Your task to perform on an android device: turn off notifications settings in the gmail app Image 0: 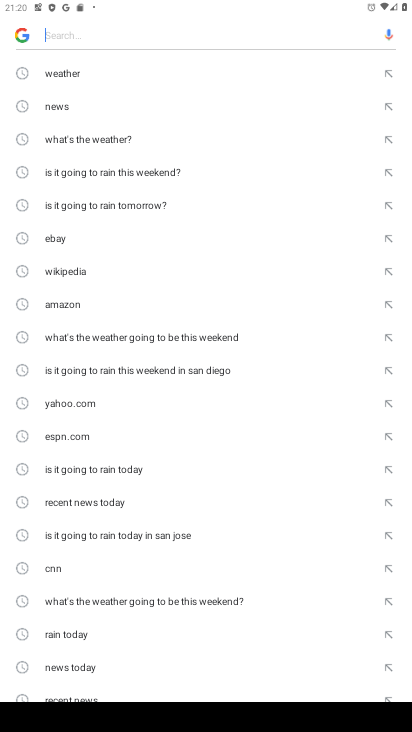
Step 0: press home button
Your task to perform on an android device: turn off notifications settings in the gmail app Image 1: 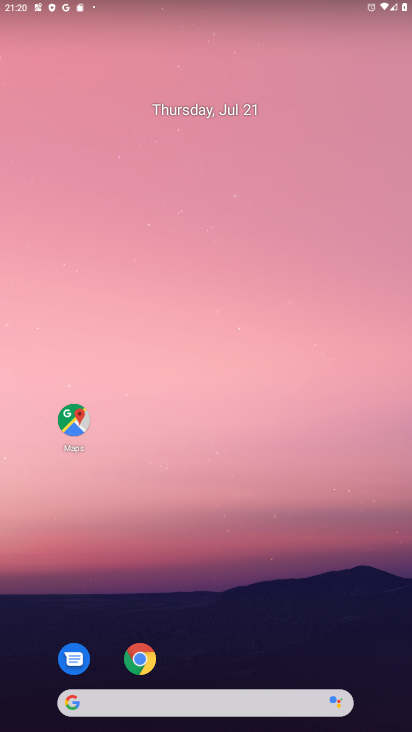
Step 1: drag from (354, 617) to (317, 230)
Your task to perform on an android device: turn off notifications settings in the gmail app Image 2: 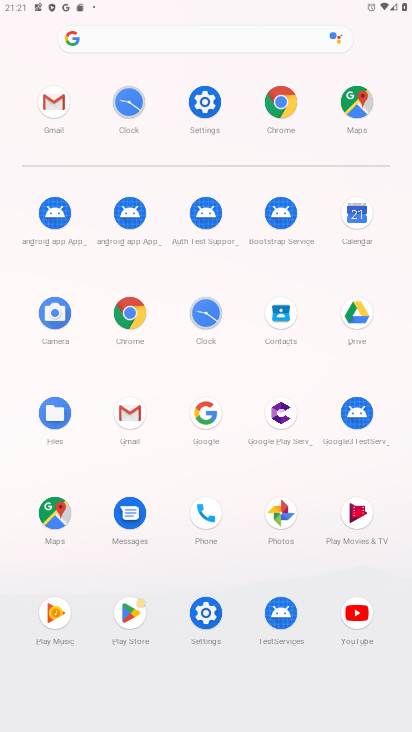
Step 2: click (126, 431)
Your task to perform on an android device: turn off notifications settings in the gmail app Image 3: 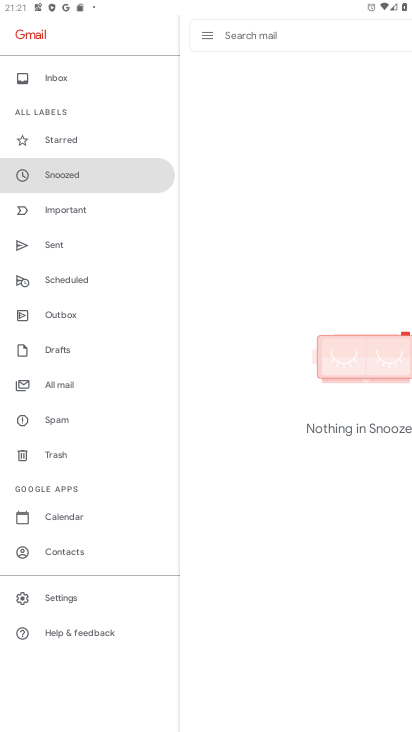
Step 3: press home button
Your task to perform on an android device: turn off notifications settings in the gmail app Image 4: 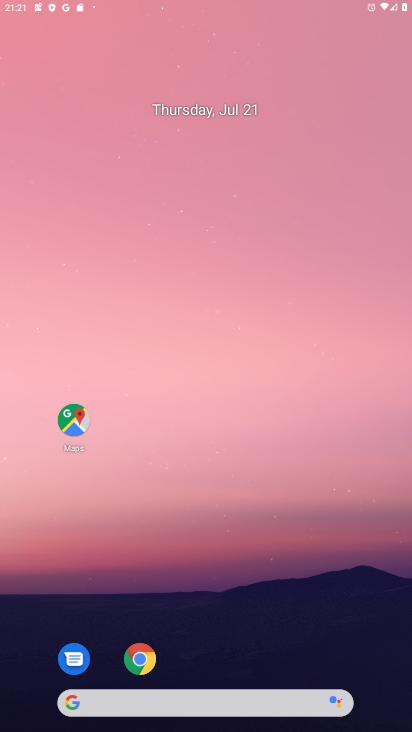
Step 4: drag from (243, 662) to (229, 290)
Your task to perform on an android device: turn off notifications settings in the gmail app Image 5: 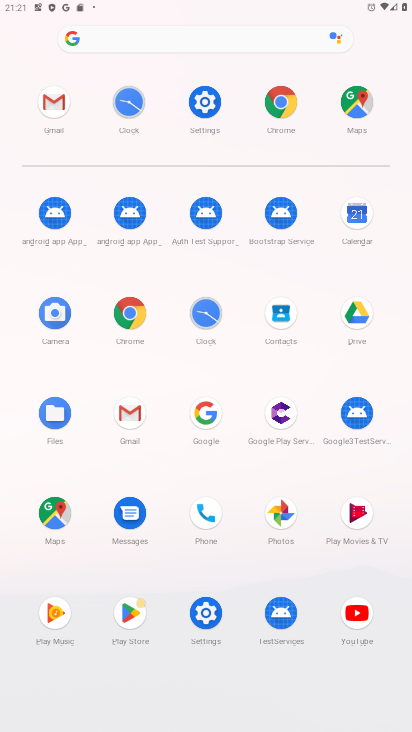
Step 5: click (145, 426)
Your task to perform on an android device: turn off notifications settings in the gmail app Image 6: 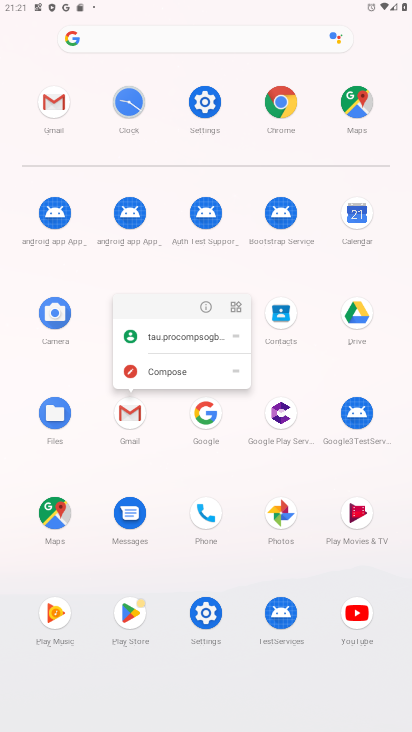
Step 6: click (202, 313)
Your task to perform on an android device: turn off notifications settings in the gmail app Image 7: 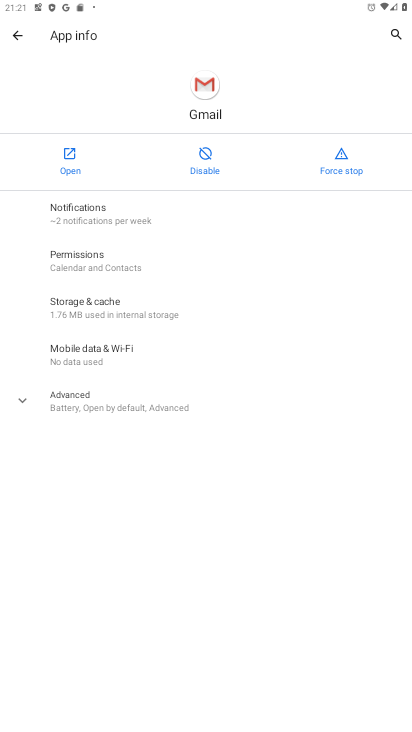
Step 7: click (83, 204)
Your task to perform on an android device: turn off notifications settings in the gmail app Image 8: 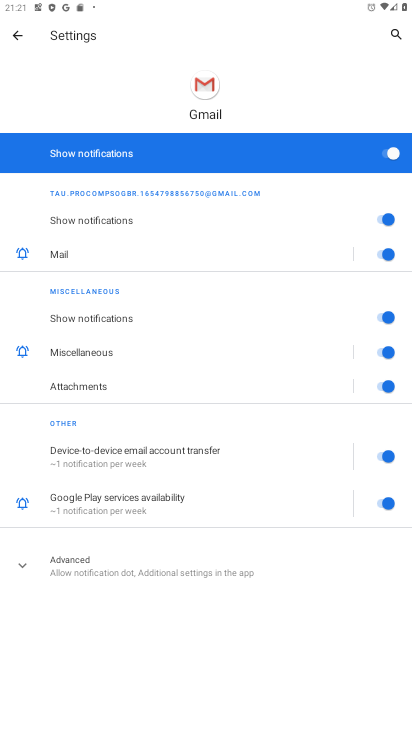
Step 8: click (250, 166)
Your task to perform on an android device: turn off notifications settings in the gmail app Image 9: 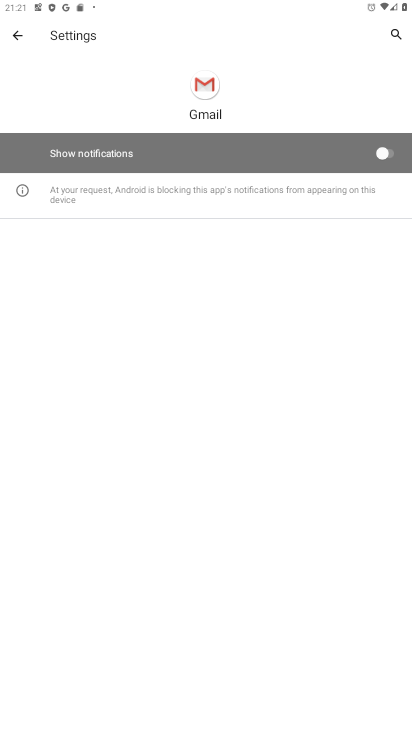
Step 9: task complete